Your task to perform on an android device: turn off notifications in google photos Image 0: 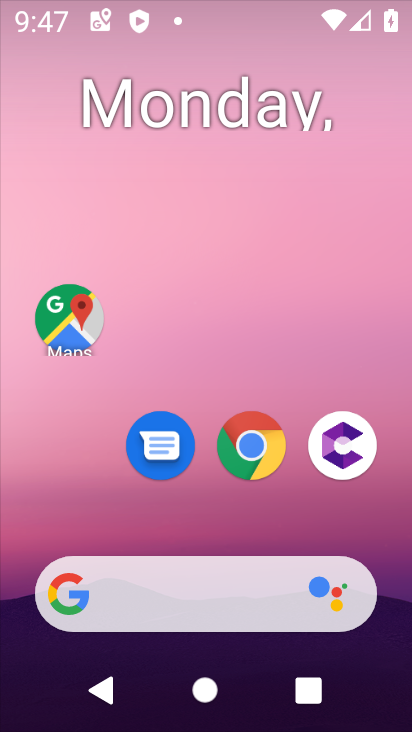
Step 0: press home button
Your task to perform on an android device: turn off notifications in google photos Image 1: 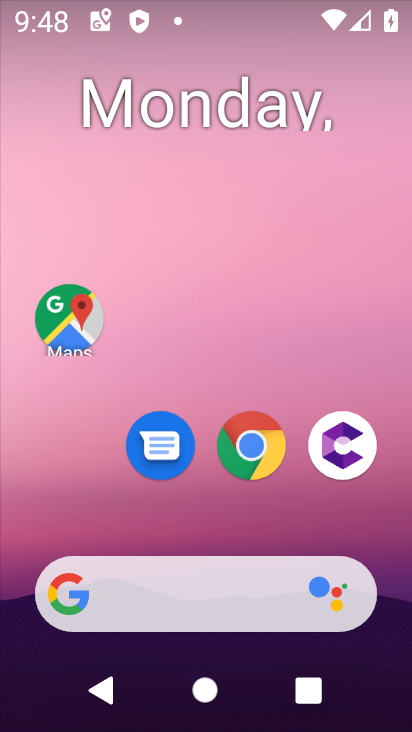
Step 1: drag from (238, 533) to (209, 129)
Your task to perform on an android device: turn off notifications in google photos Image 2: 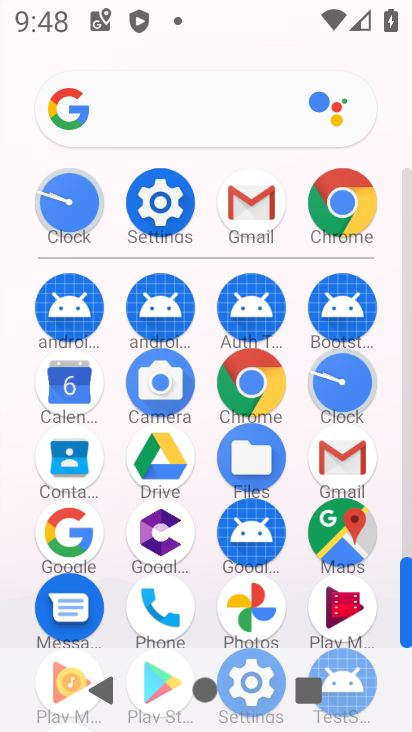
Step 2: click (240, 612)
Your task to perform on an android device: turn off notifications in google photos Image 3: 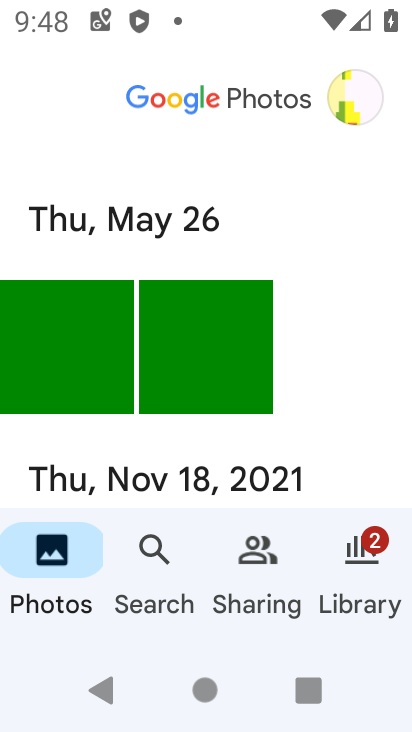
Step 3: click (354, 106)
Your task to perform on an android device: turn off notifications in google photos Image 4: 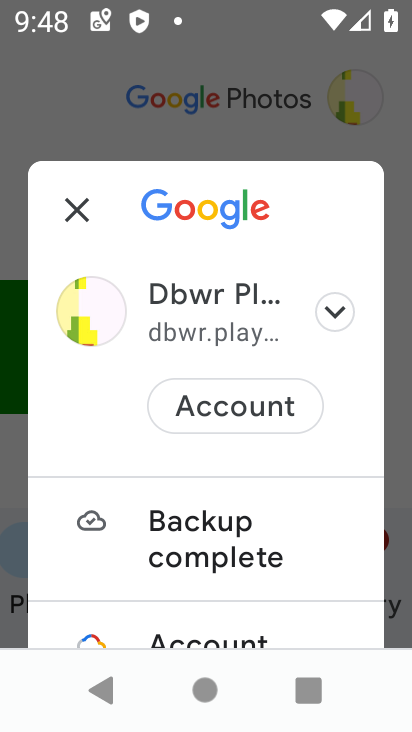
Step 4: drag from (325, 535) to (293, 176)
Your task to perform on an android device: turn off notifications in google photos Image 5: 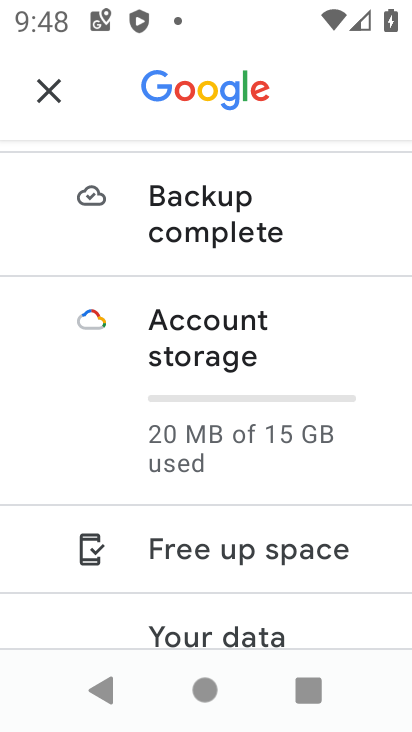
Step 5: drag from (343, 616) to (294, 180)
Your task to perform on an android device: turn off notifications in google photos Image 6: 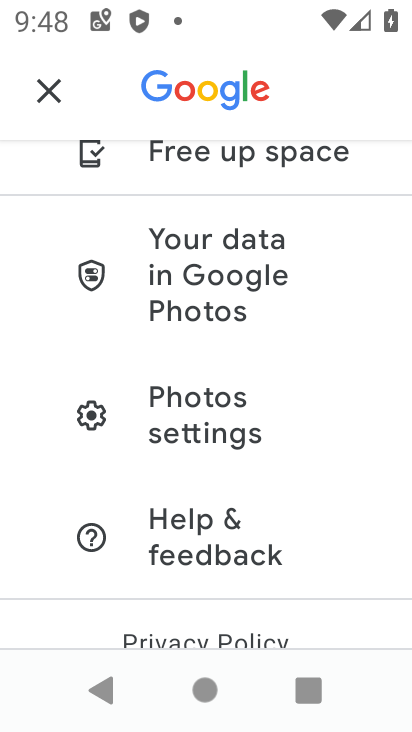
Step 6: click (214, 418)
Your task to perform on an android device: turn off notifications in google photos Image 7: 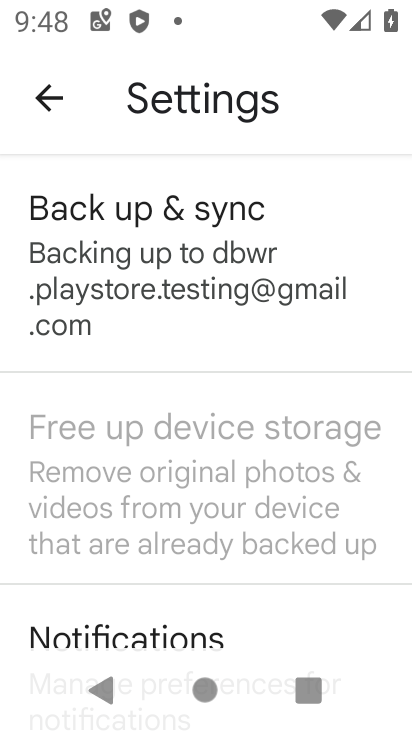
Step 7: drag from (282, 343) to (297, 134)
Your task to perform on an android device: turn off notifications in google photos Image 8: 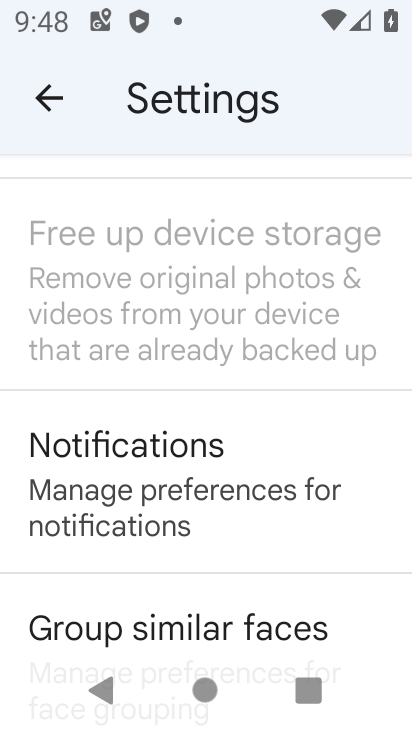
Step 8: click (122, 448)
Your task to perform on an android device: turn off notifications in google photos Image 9: 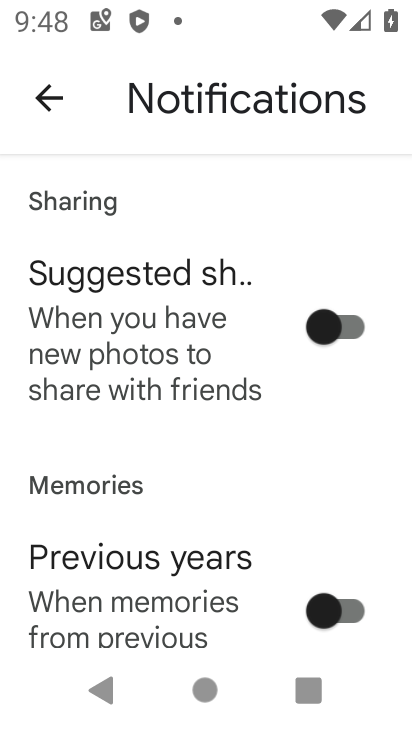
Step 9: drag from (350, 506) to (342, 384)
Your task to perform on an android device: turn off notifications in google photos Image 10: 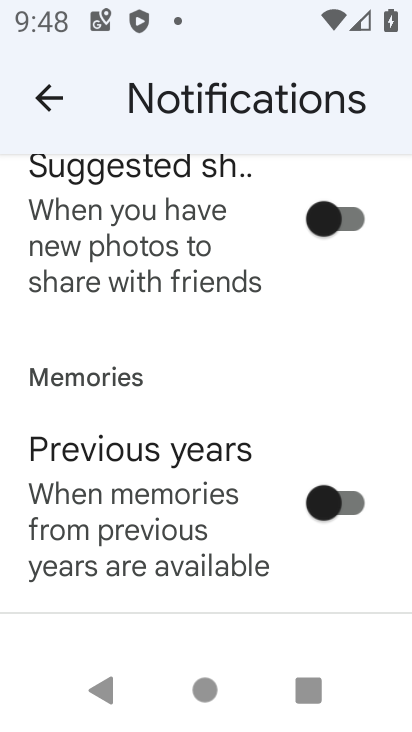
Step 10: click (332, 222)
Your task to perform on an android device: turn off notifications in google photos Image 11: 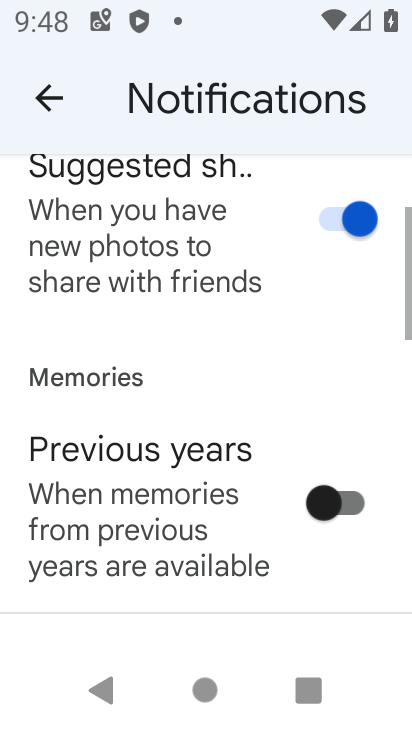
Step 11: task complete